Your task to perform on an android device: Search for "razer kraken" on walmart, select the first entry, and add it to the cart. Image 0: 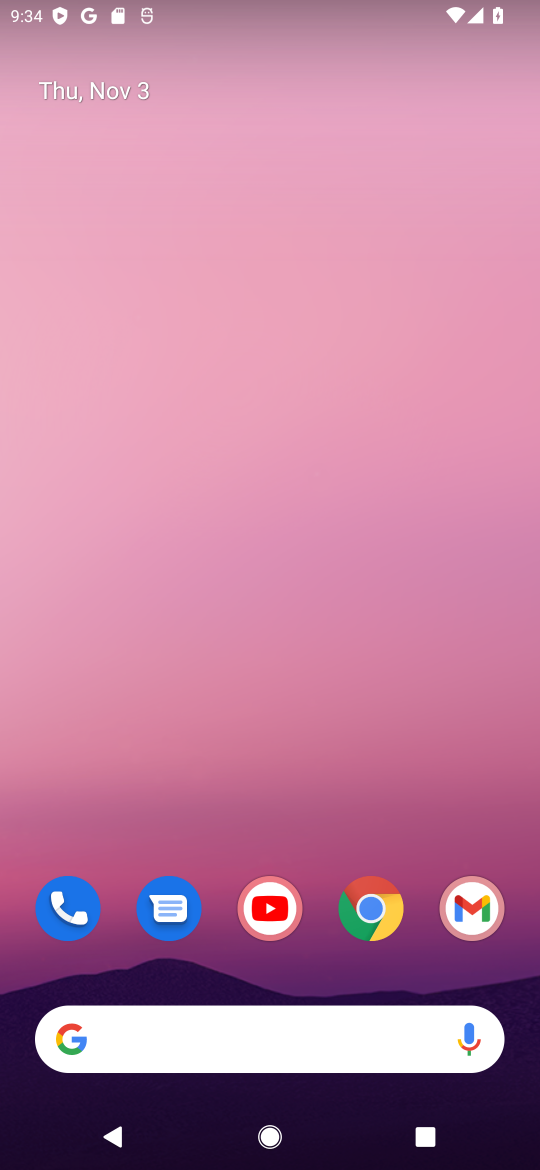
Step 0: click (368, 908)
Your task to perform on an android device: Search for "razer kraken" on walmart, select the first entry, and add it to the cart. Image 1: 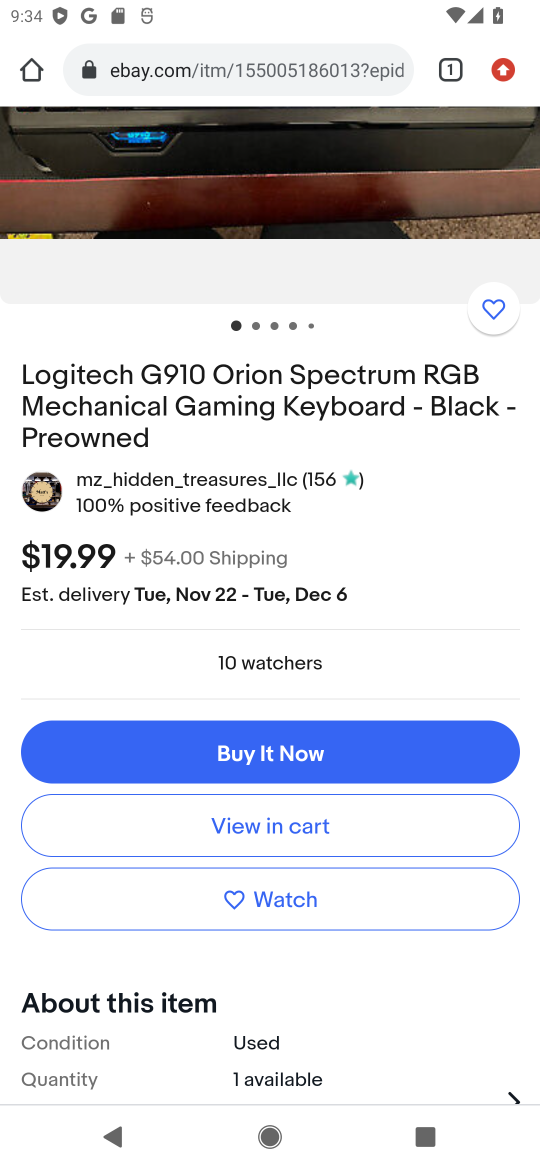
Step 1: click (263, 70)
Your task to perform on an android device: Search for "razer kraken" on walmart, select the first entry, and add it to the cart. Image 2: 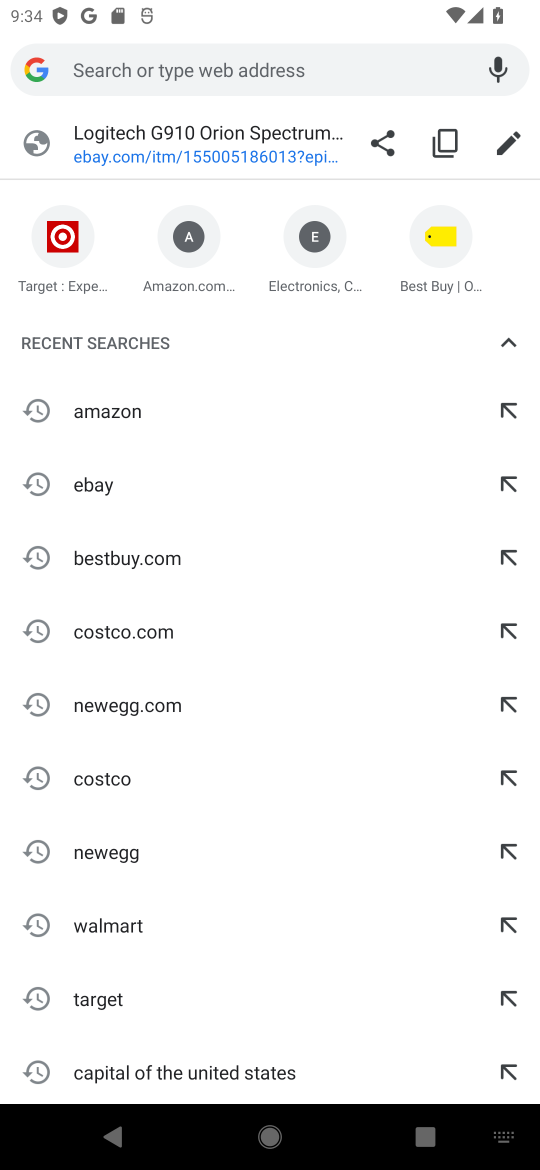
Step 2: type "walmart"
Your task to perform on an android device: Search for "razer kraken" on walmart, select the first entry, and add it to the cart. Image 3: 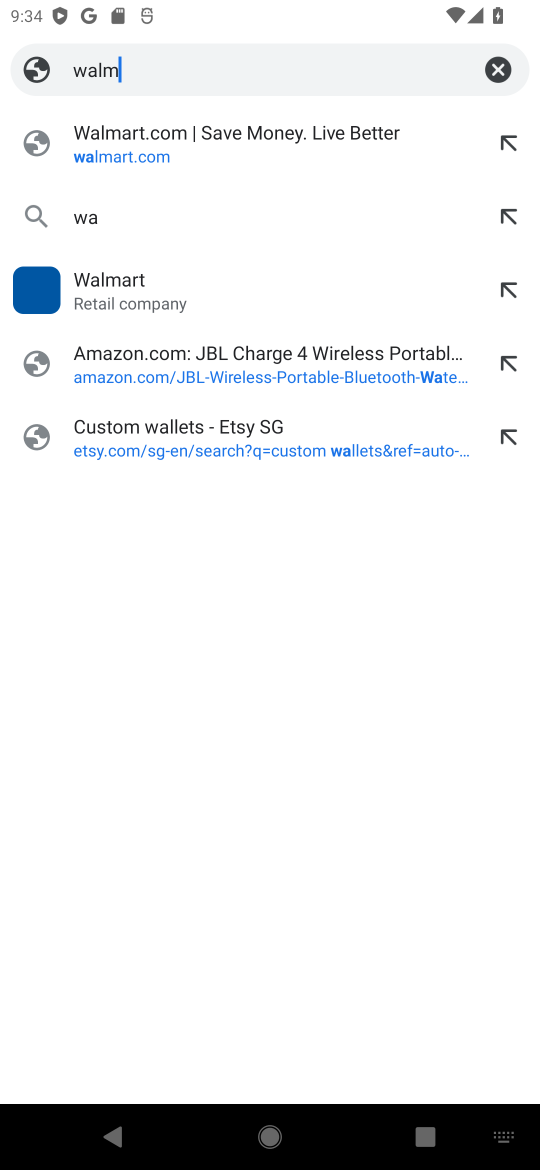
Step 3: press enter
Your task to perform on an android device: Search for "razer kraken" on walmart, select the first entry, and add it to the cart. Image 4: 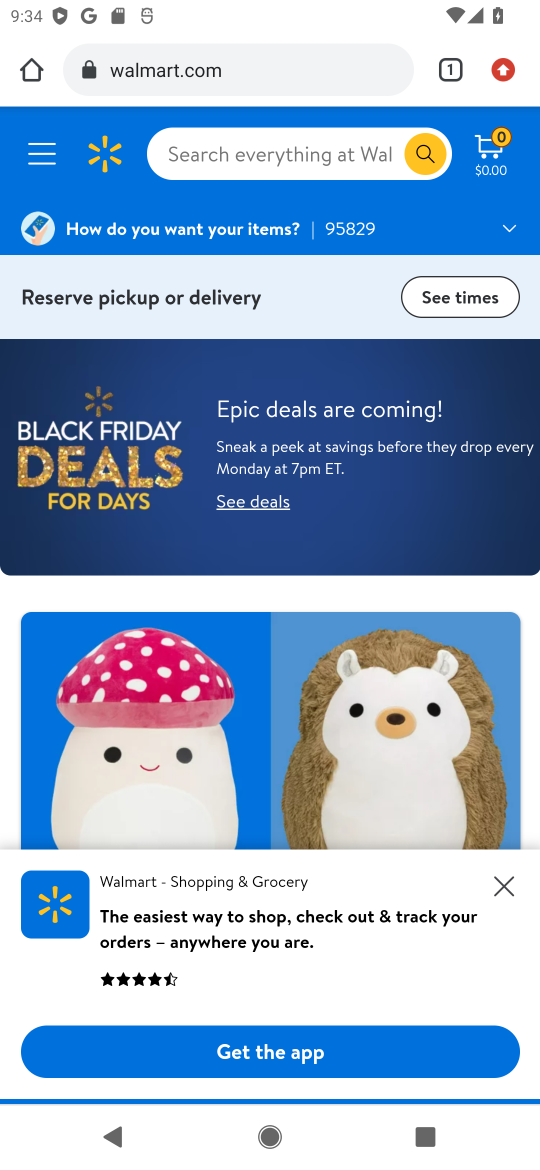
Step 4: click (329, 148)
Your task to perform on an android device: Search for "razer kraken" on walmart, select the first entry, and add it to the cart. Image 5: 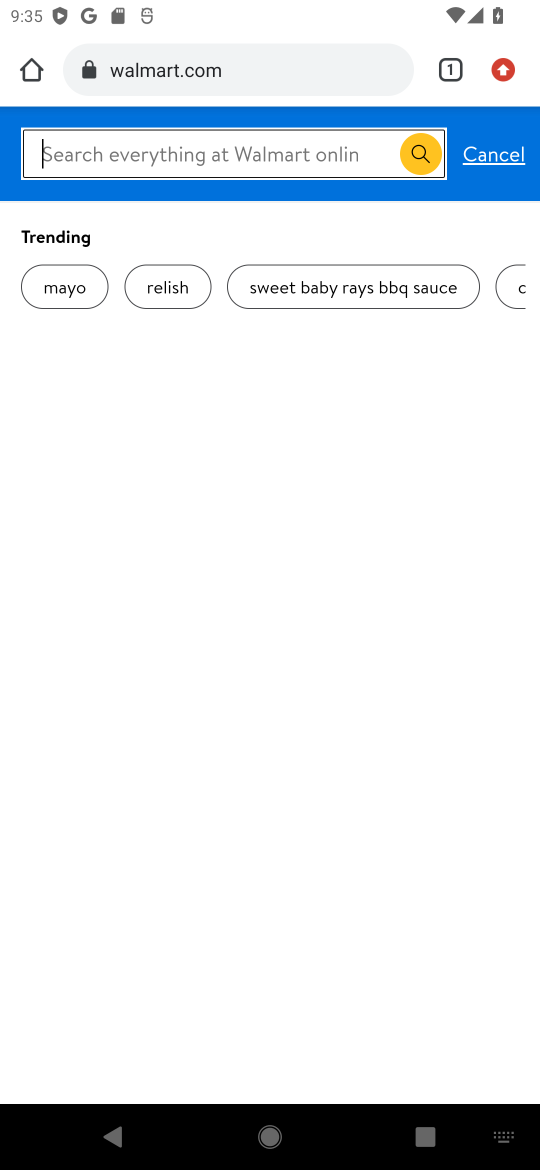
Step 5: type "razer kraken"
Your task to perform on an android device: Search for "razer kraken" on walmart, select the first entry, and add it to the cart. Image 6: 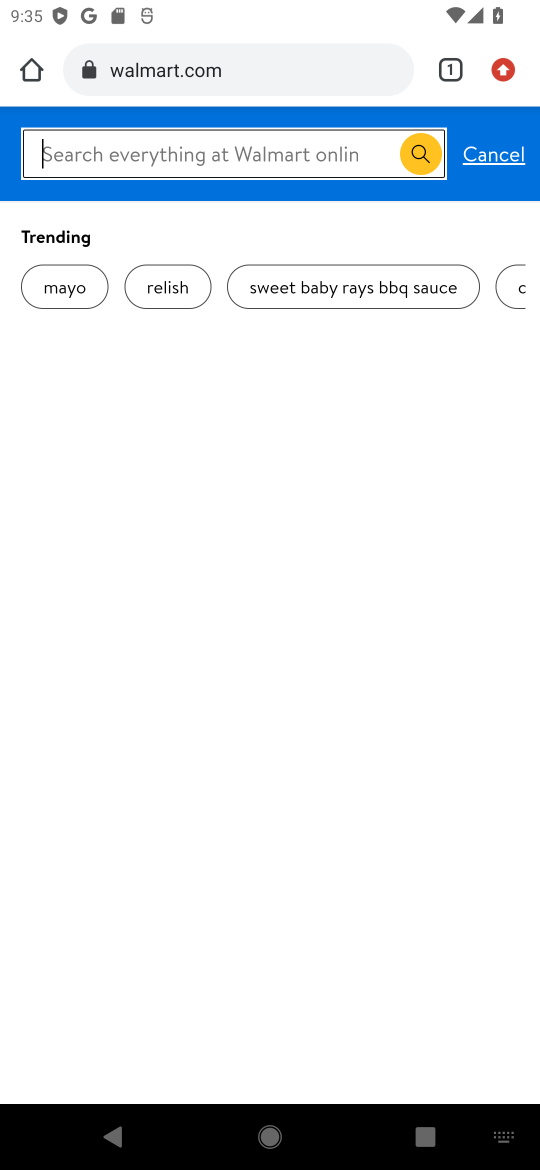
Step 6: press enter
Your task to perform on an android device: Search for "razer kraken" on walmart, select the first entry, and add it to the cart. Image 7: 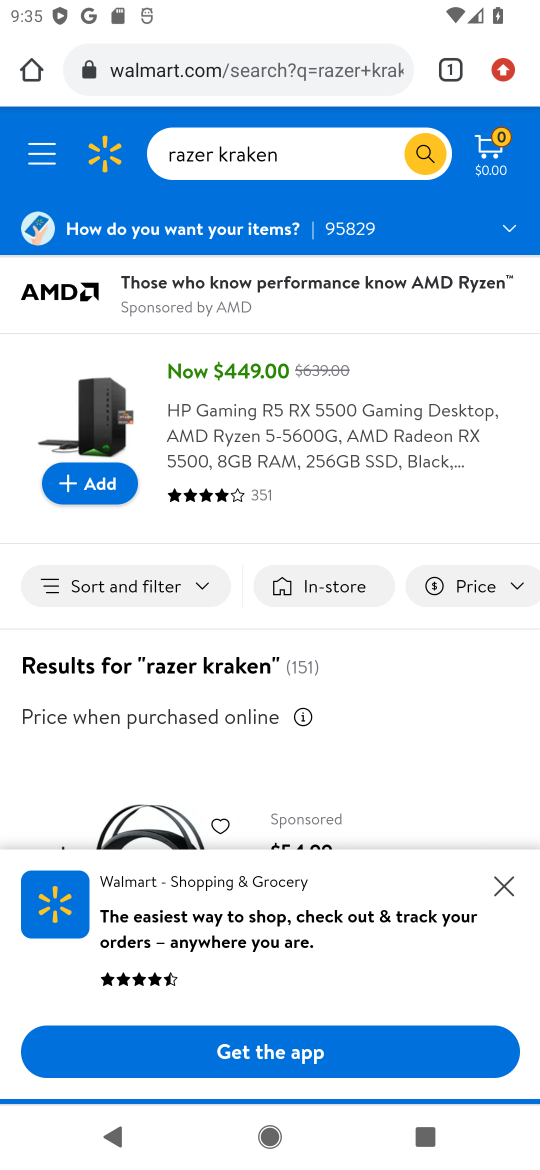
Step 7: click (506, 885)
Your task to perform on an android device: Search for "razer kraken" on walmart, select the first entry, and add it to the cart. Image 8: 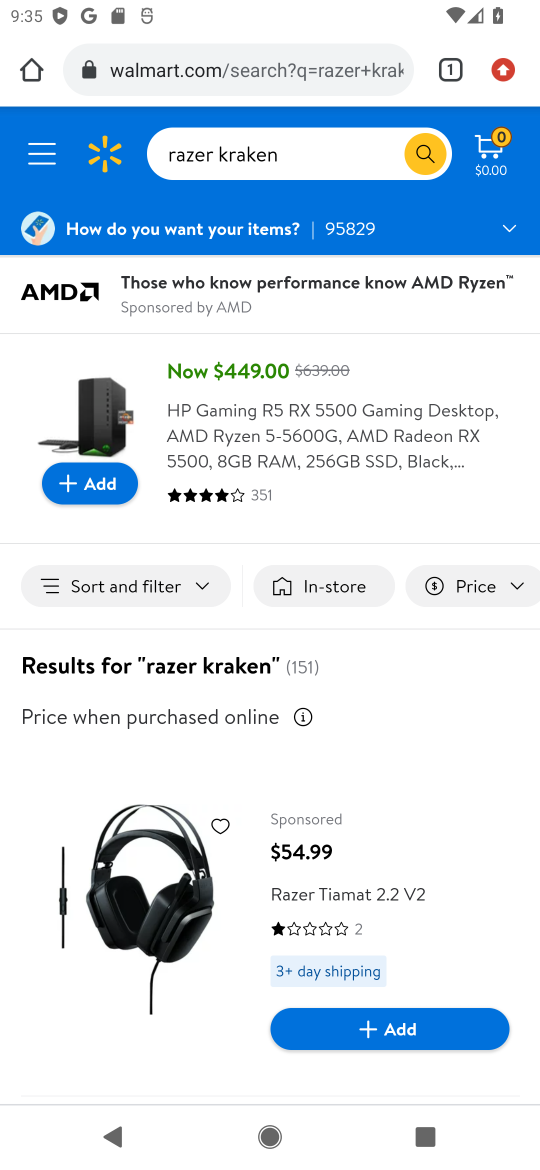
Step 8: drag from (426, 855) to (414, 423)
Your task to perform on an android device: Search for "razer kraken" on walmart, select the first entry, and add it to the cart. Image 9: 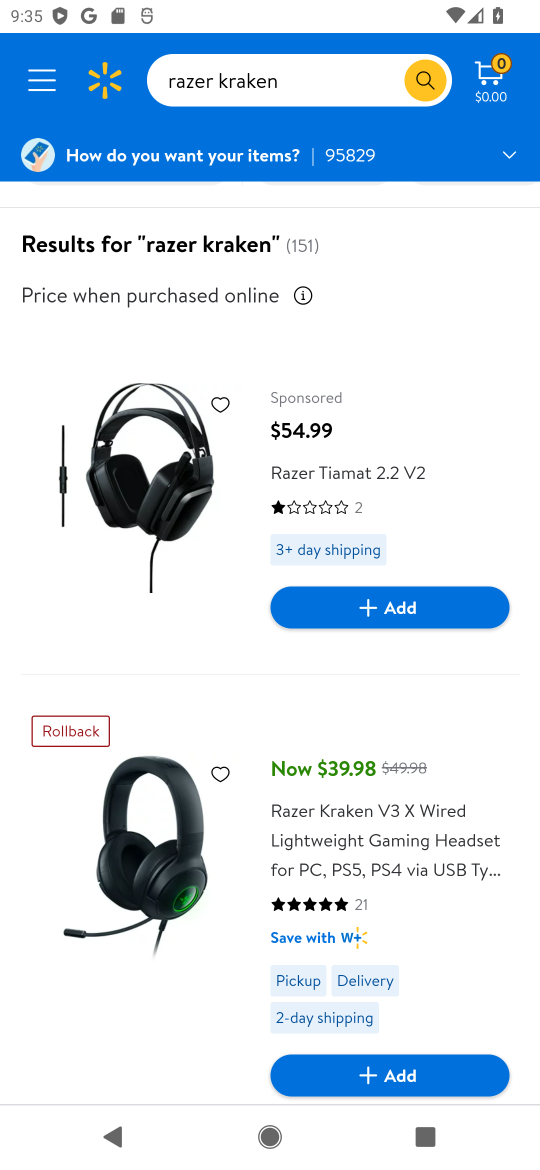
Step 9: click (179, 834)
Your task to perform on an android device: Search for "razer kraken" on walmart, select the first entry, and add it to the cart. Image 10: 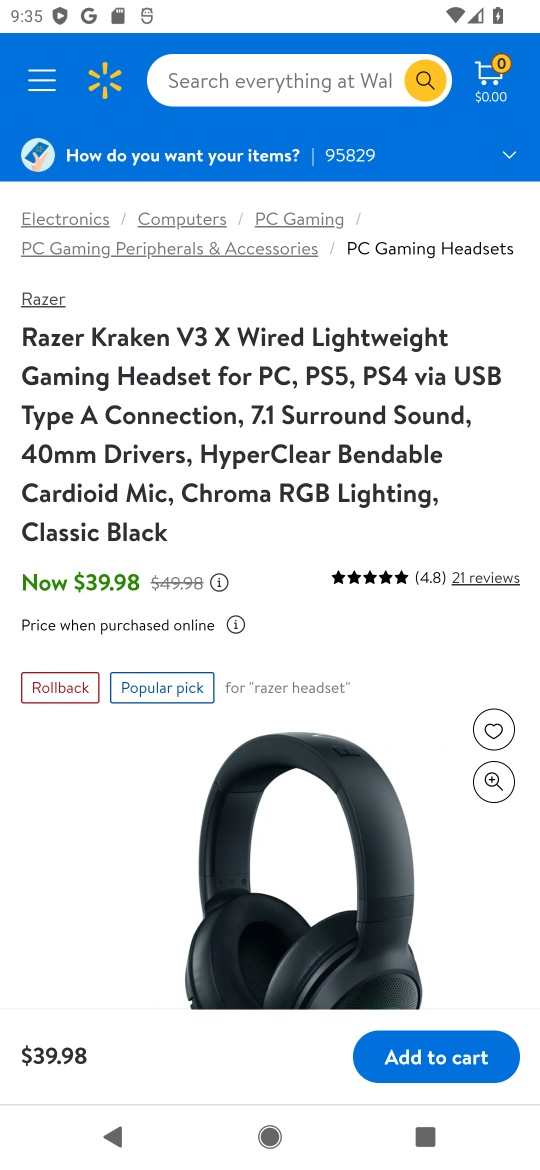
Step 10: click (455, 1050)
Your task to perform on an android device: Search for "razer kraken" on walmart, select the first entry, and add it to the cart. Image 11: 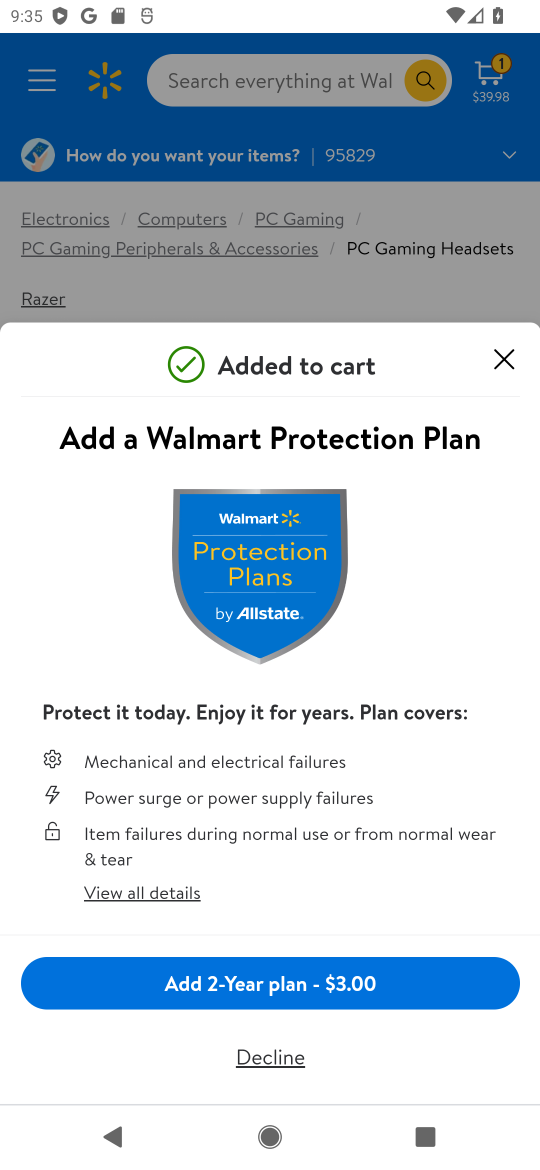
Step 11: click (505, 347)
Your task to perform on an android device: Search for "razer kraken" on walmart, select the first entry, and add it to the cart. Image 12: 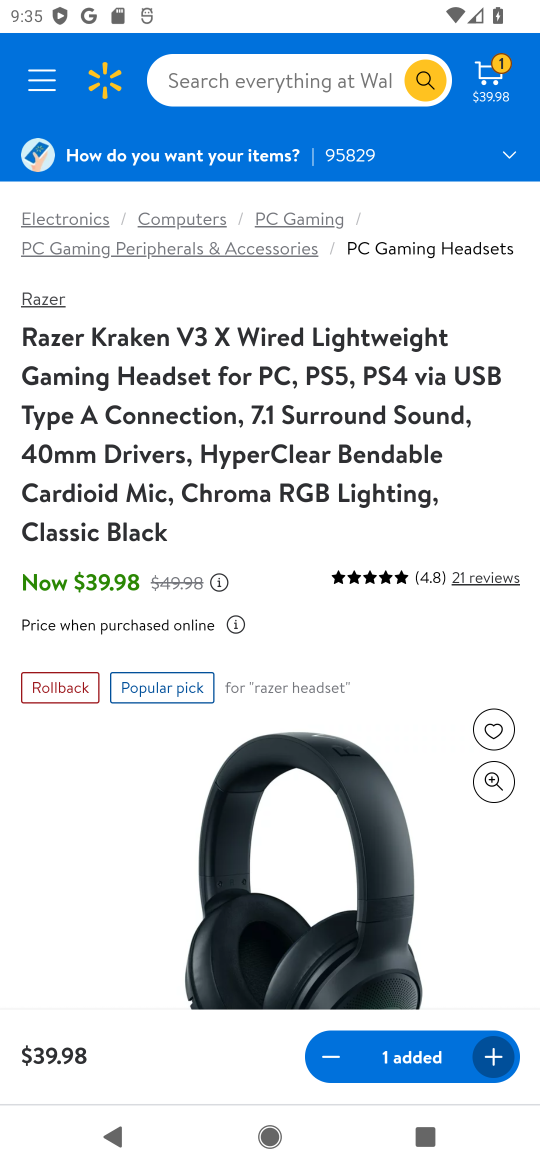
Step 12: task complete